Your task to perform on an android device: Go to Google maps Image 0: 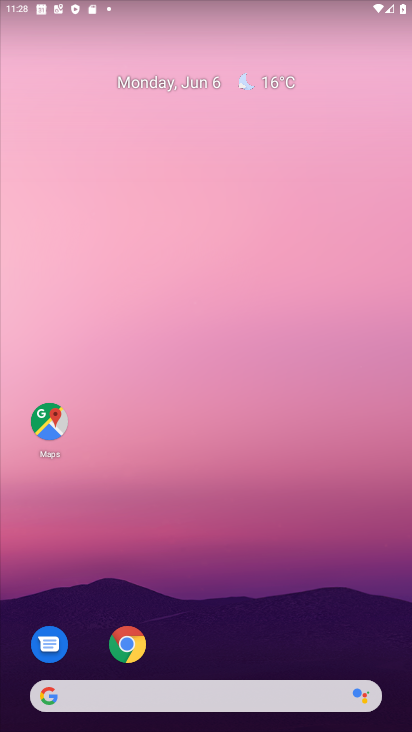
Step 0: drag from (262, 520) to (203, 10)
Your task to perform on an android device: Go to Google maps Image 1: 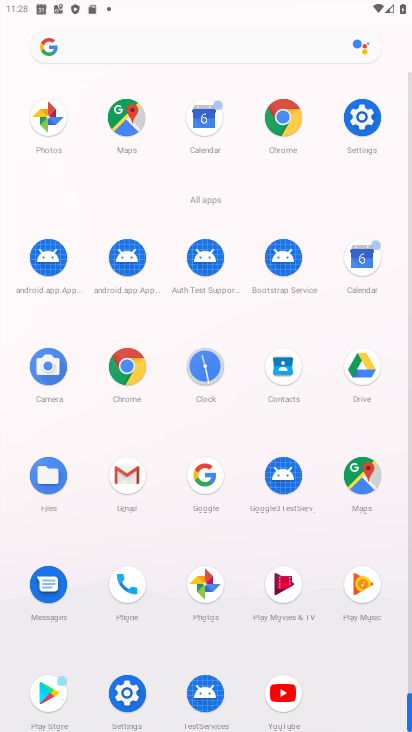
Step 1: drag from (1, 572) to (0, 197)
Your task to perform on an android device: Go to Google maps Image 2: 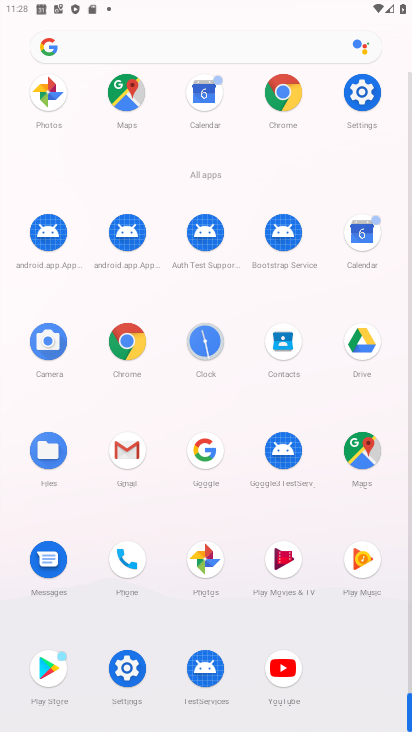
Step 2: click (365, 454)
Your task to perform on an android device: Go to Google maps Image 3: 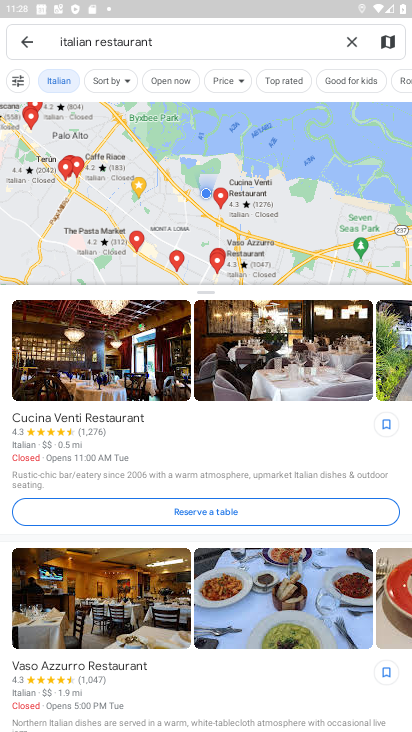
Step 3: click (352, 37)
Your task to perform on an android device: Go to Google maps Image 4: 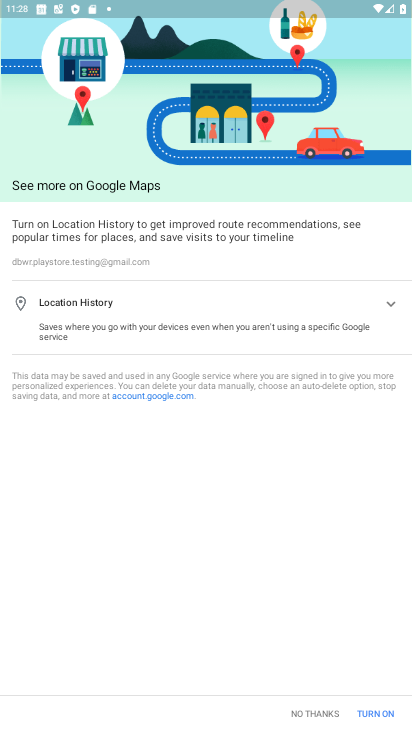
Step 4: click (366, 710)
Your task to perform on an android device: Go to Google maps Image 5: 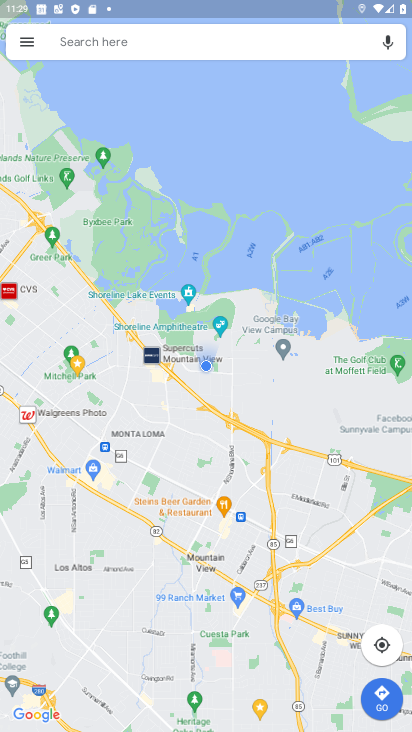
Step 5: task complete